Your task to perform on an android device: change timer sound Image 0: 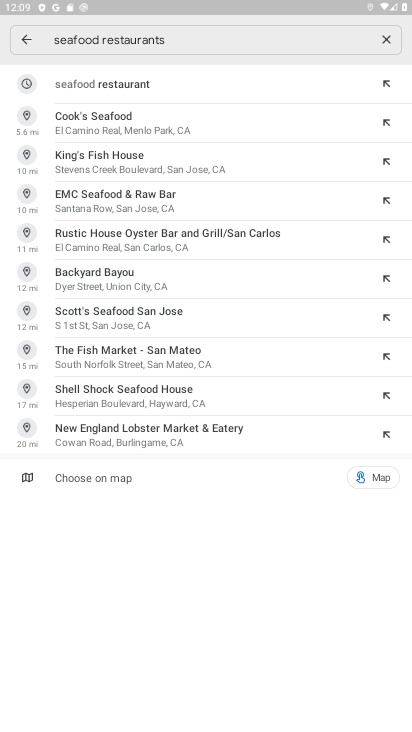
Step 0: click (103, 699)
Your task to perform on an android device: change timer sound Image 1: 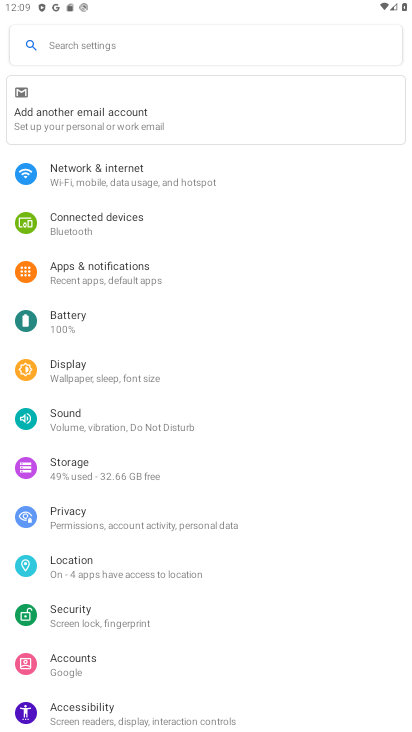
Step 1: press home button
Your task to perform on an android device: change timer sound Image 2: 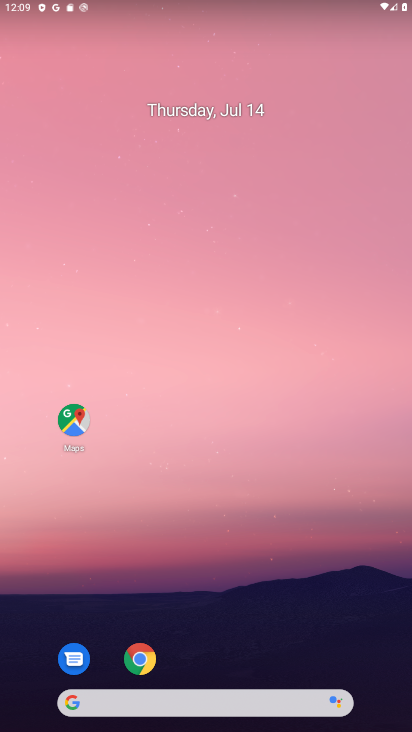
Step 2: drag from (45, 678) to (296, 82)
Your task to perform on an android device: change timer sound Image 3: 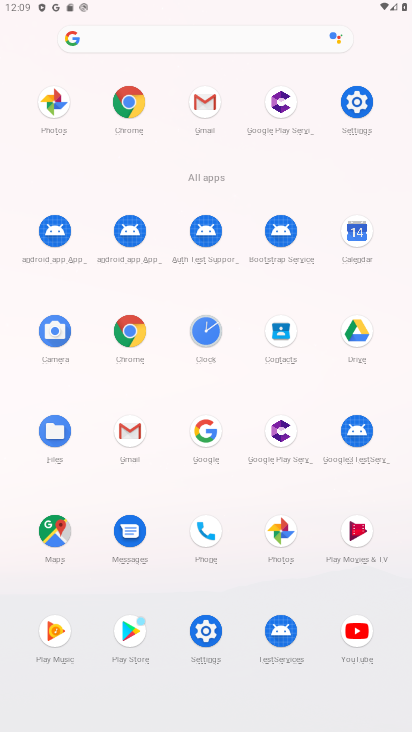
Step 3: click (193, 321)
Your task to perform on an android device: change timer sound Image 4: 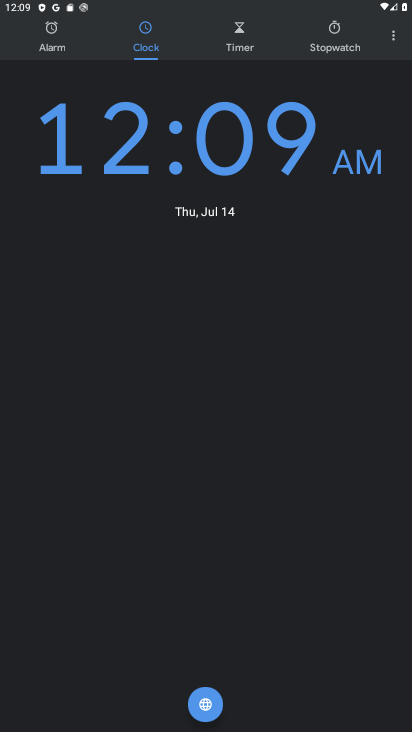
Step 4: click (251, 42)
Your task to perform on an android device: change timer sound Image 5: 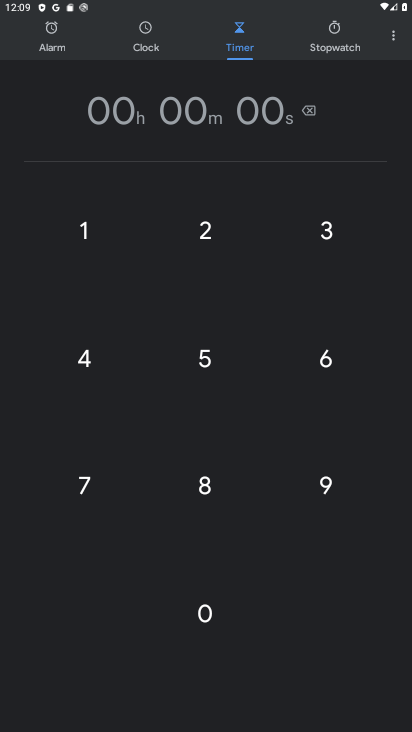
Step 5: click (186, 362)
Your task to perform on an android device: change timer sound Image 6: 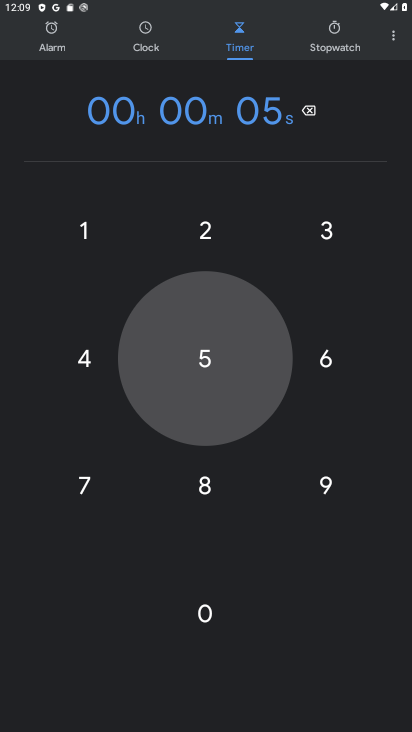
Step 6: click (213, 390)
Your task to perform on an android device: change timer sound Image 7: 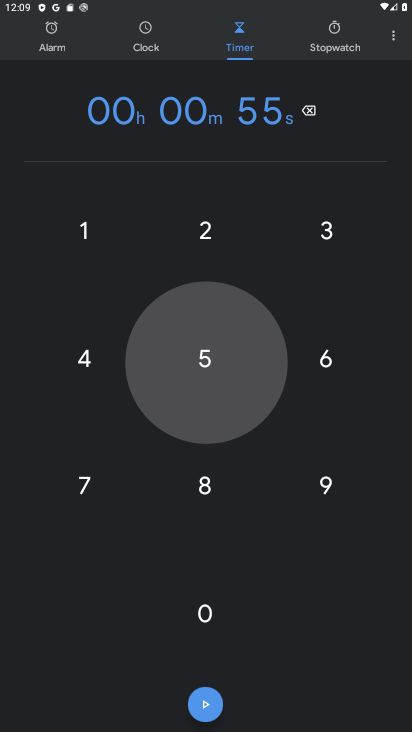
Step 7: click (209, 324)
Your task to perform on an android device: change timer sound Image 8: 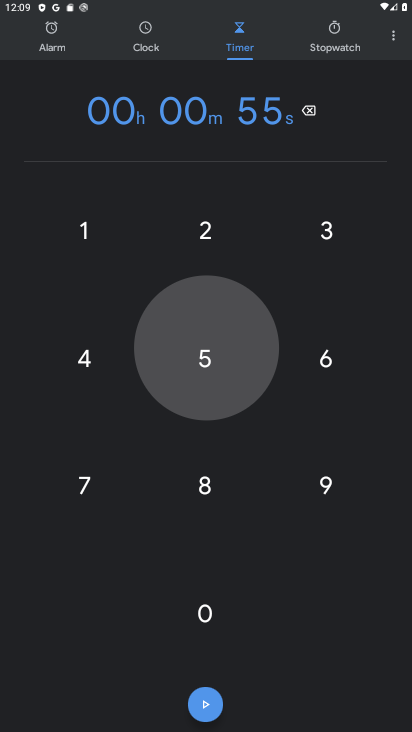
Step 8: click (163, 256)
Your task to perform on an android device: change timer sound Image 9: 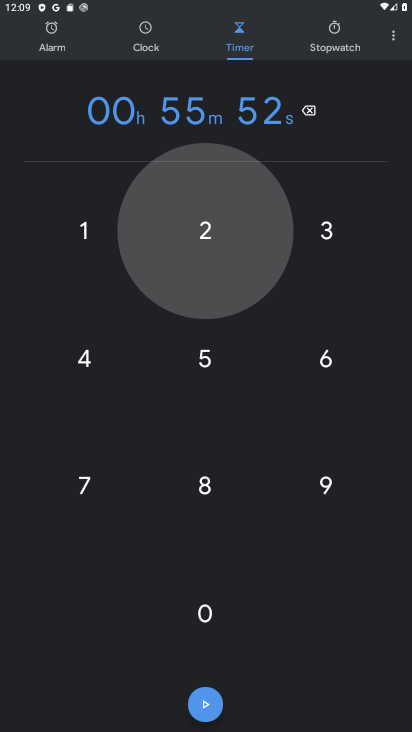
Step 9: click (51, 256)
Your task to perform on an android device: change timer sound Image 10: 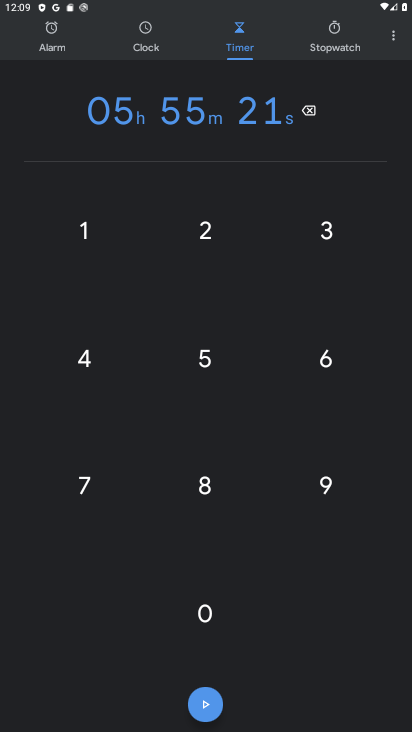
Step 10: click (205, 703)
Your task to perform on an android device: change timer sound Image 11: 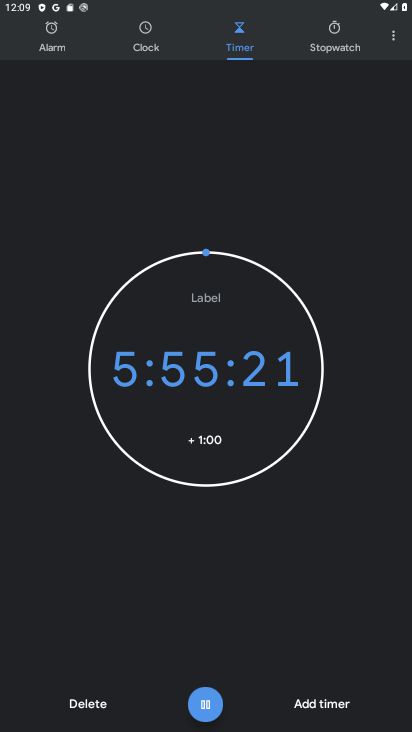
Step 11: click (391, 28)
Your task to perform on an android device: change timer sound Image 12: 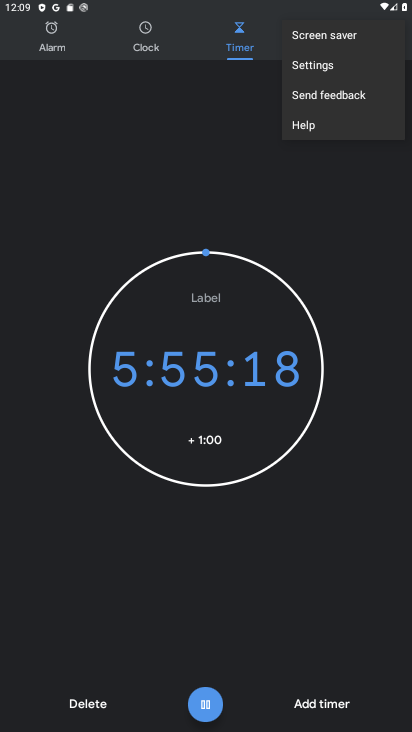
Step 12: click (321, 71)
Your task to perform on an android device: change timer sound Image 13: 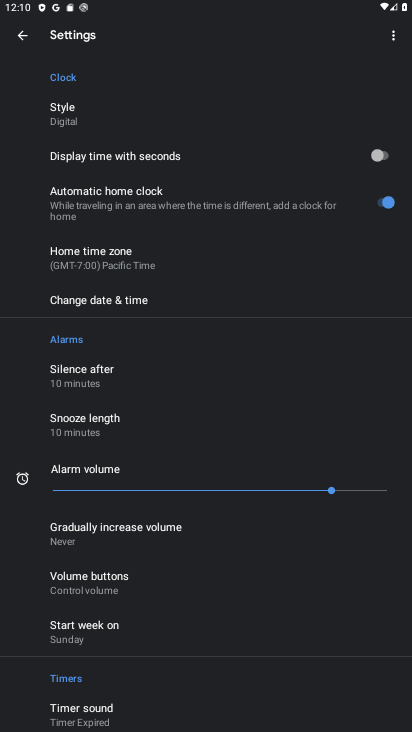
Step 13: drag from (149, 605) to (157, 449)
Your task to perform on an android device: change timer sound Image 14: 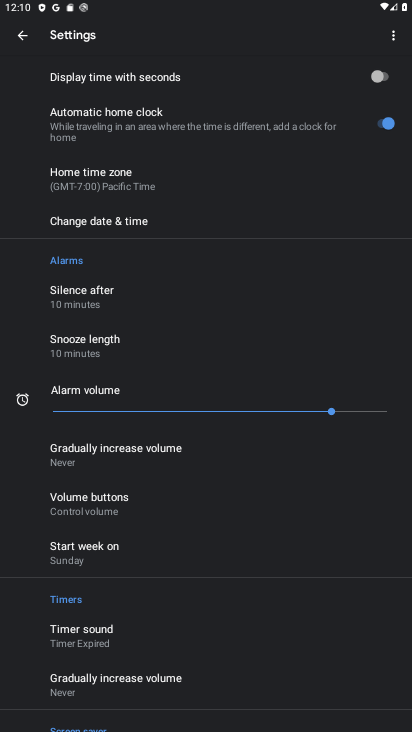
Step 14: click (101, 648)
Your task to perform on an android device: change timer sound Image 15: 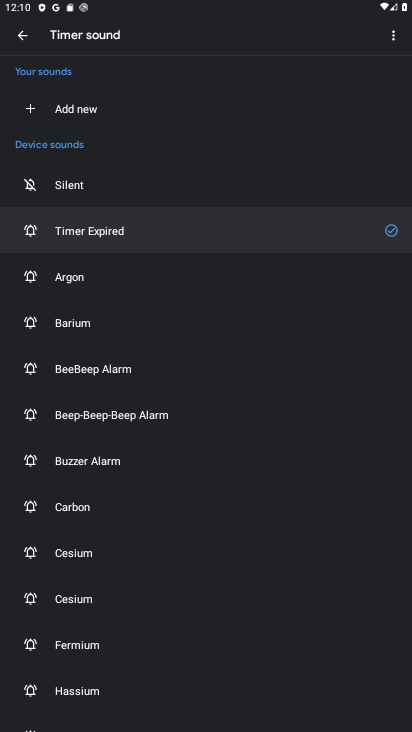
Step 15: click (80, 282)
Your task to perform on an android device: change timer sound Image 16: 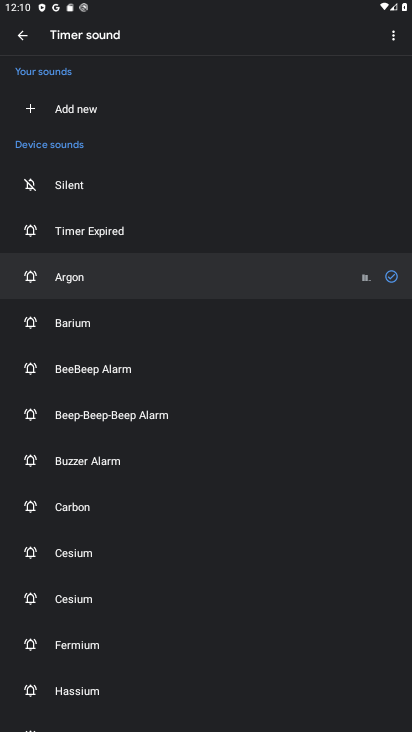
Step 16: task complete